Your task to perform on an android device: turn on translation in the chrome app Image 0: 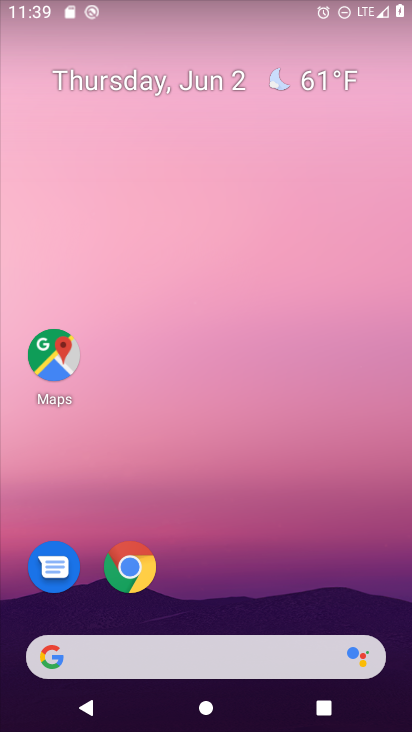
Step 0: click (133, 568)
Your task to perform on an android device: turn on translation in the chrome app Image 1: 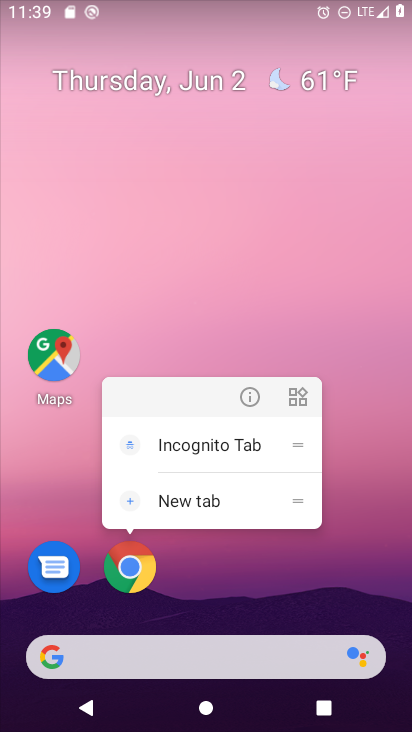
Step 1: click (129, 567)
Your task to perform on an android device: turn on translation in the chrome app Image 2: 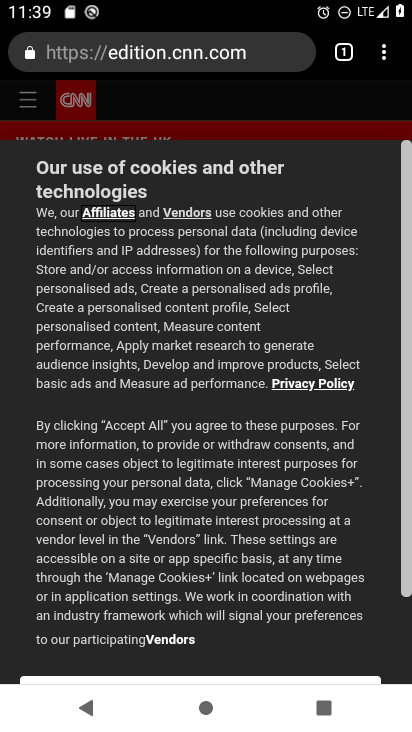
Step 2: click (129, 565)
Your task to perform on an android device: turn on translation in the chrome app Image 3: 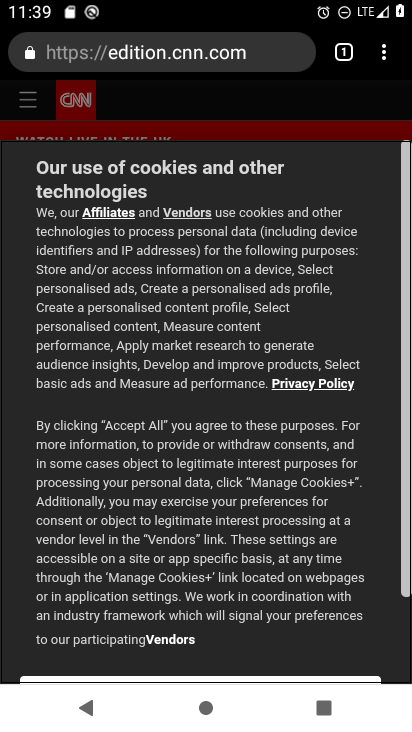
Step 3: drag from (380, 48) to (401, 168)
Your task to perform on an android device: turn on translation in the chrome app Image 4: 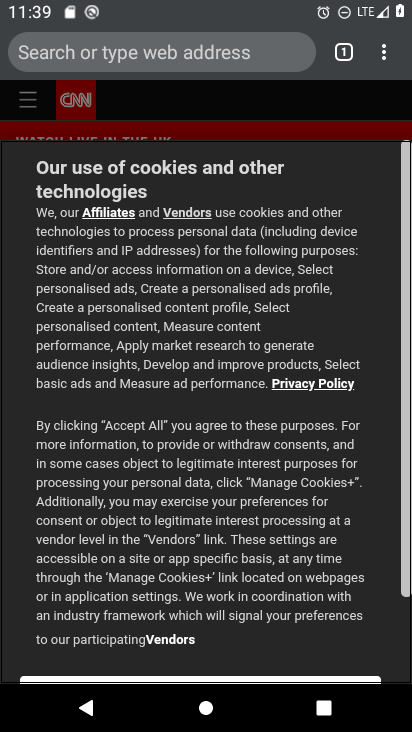
Step 4: drag from (249, 225) to (323, 159)
Your task to perform on an android device: turn on translation in the chrome app Image 5: 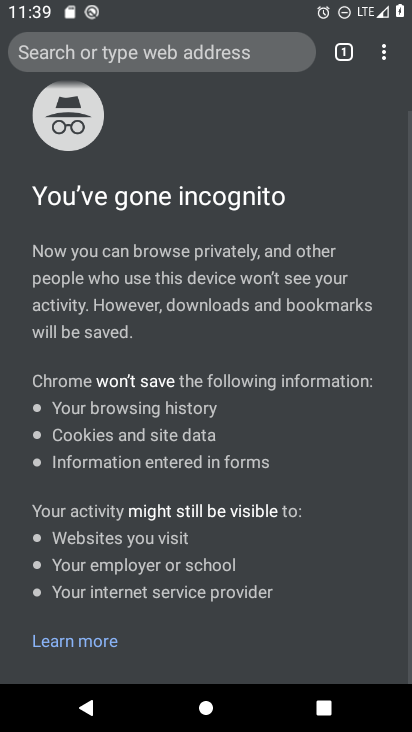
Step 5: click (383, 50)
Your task to perform on an android device: turn on translation in the chrome app Image 6: 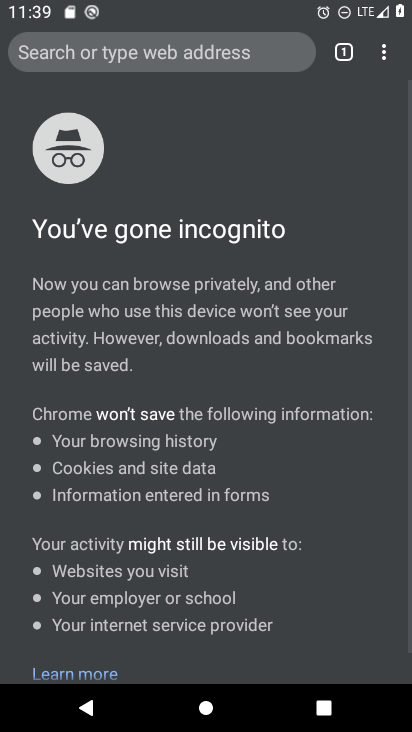
Step 6: drag from (384, 46) to (217, 378)
Your task to perform on an android device: turn on translation in the chrome app Image 7: 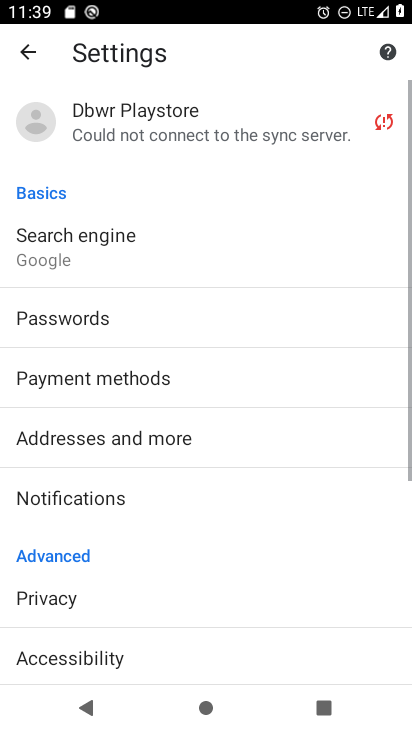
Step 7: drag from (177, 582) to (224, 163)
Your task to perform on an android device: turn on translation in the chrome app Image 8: 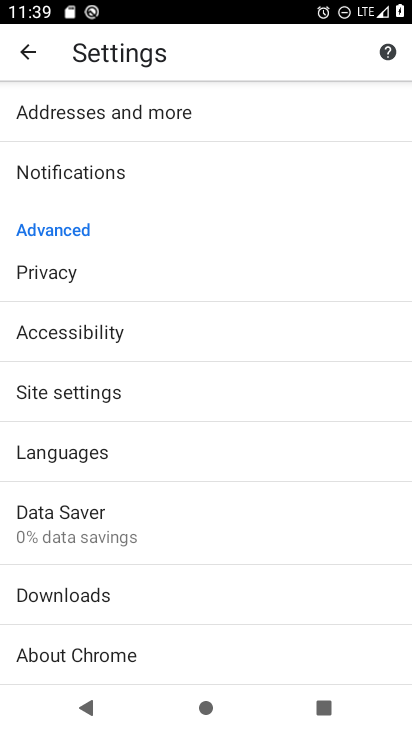
Step 8: click (127, 457)
Your task to perform on an android device: turn on translation in the chrome app Image 9: 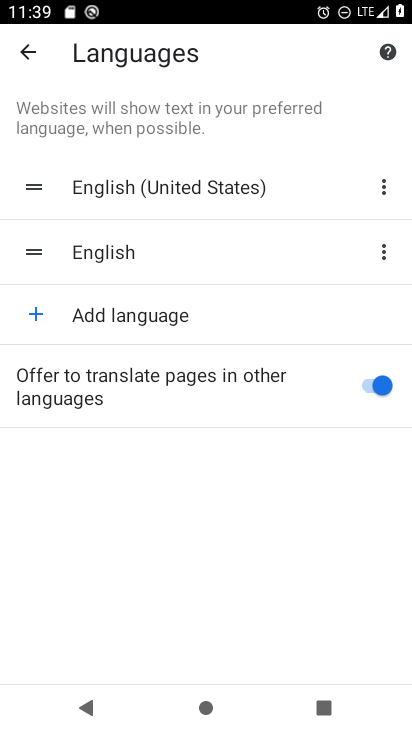
Step 9: task complete